Your task to perform on an android device: What's on my calendar today? Image 0: 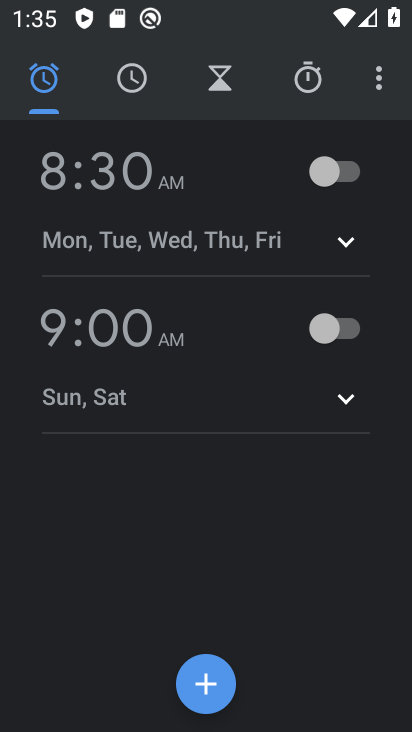
Step 0: press home button
Your task to perform on an android device: What's on my calendar today? Image 1: 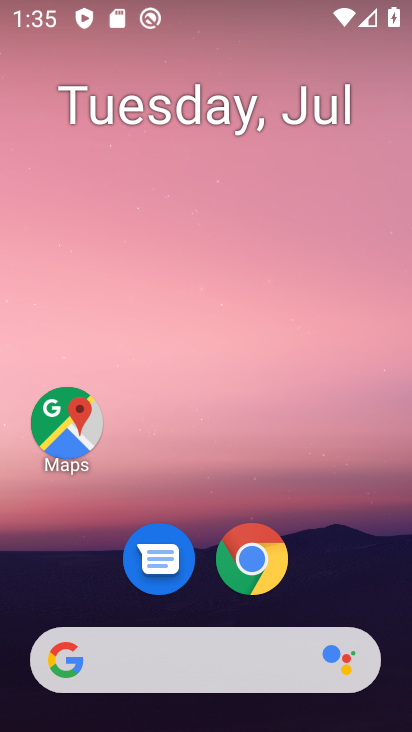
Step 1: drag from (370, 573) to (375, 103)
Your task to perform on an android device: What's on my calendar today? Image 2: 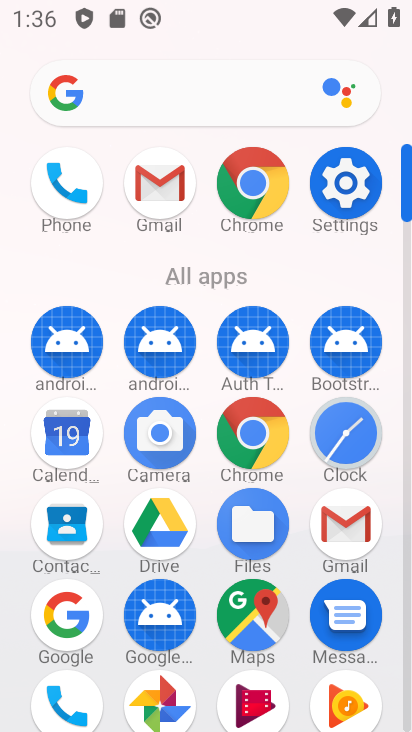
Step 2: click (80, 460)
Your task to perform on an android device: What's on my calendar today? Image 3: 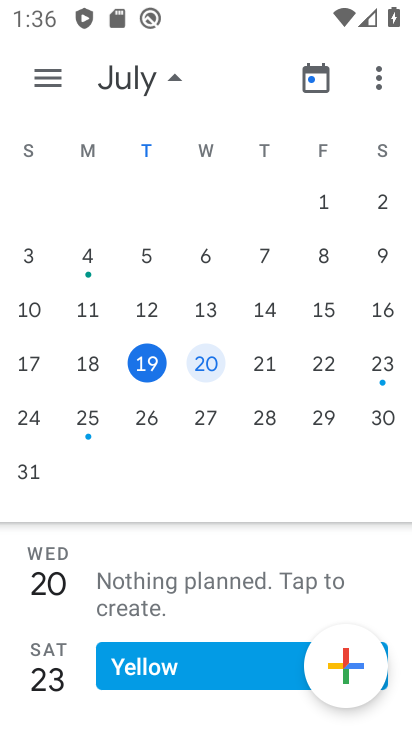
Step 3: click (136, 369)
Your task to perform on an android device: What's on my calendar today? Image 4: 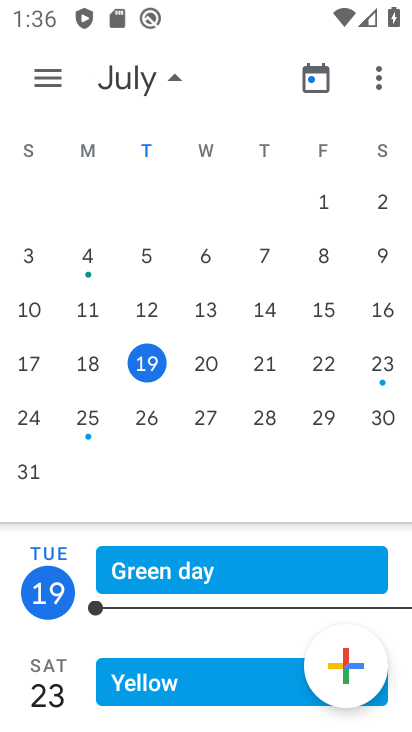
Step 4: click (221, 572)
Your task to perform on an android device: What's on my calendar today? Image 5: 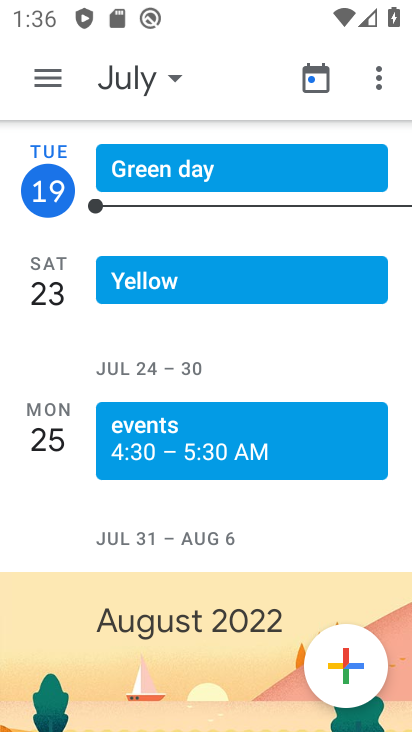
Step 5: click (229, 158)
Your task to perform on an android device: What's on my calendar today? Image 6: 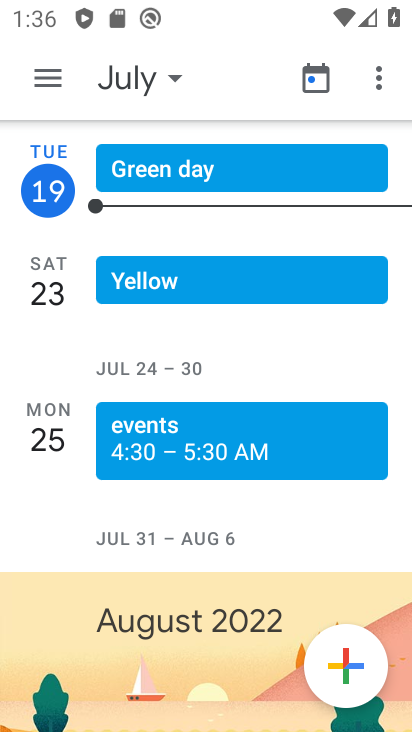
Step 6: task complete